Your task to perform on an android device: uninstall "eBay: The shopping marketplace" Image 0: 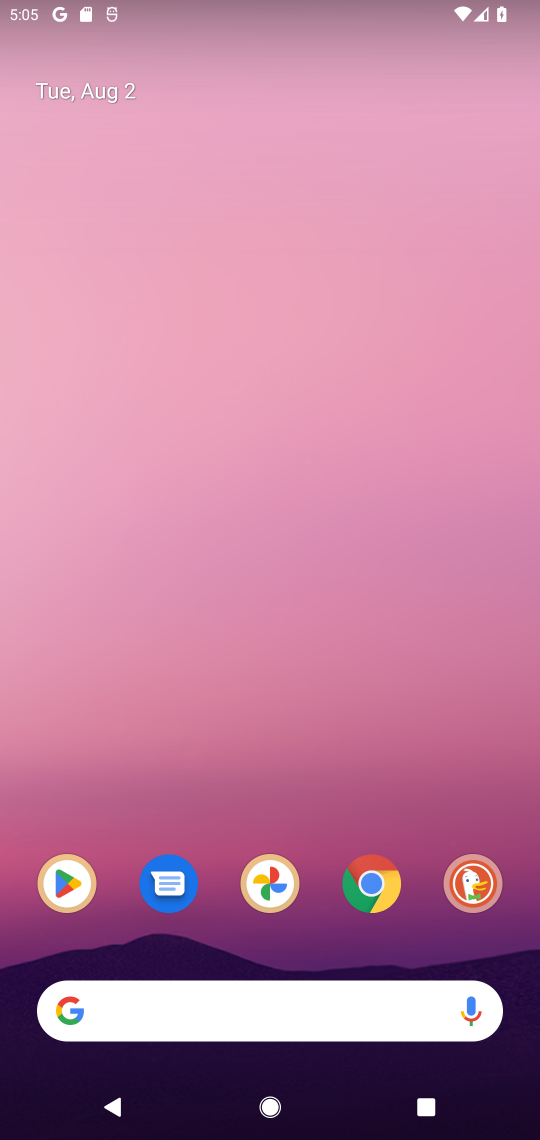
Step 0: drag from (235, 951) to (204, 109)
Your task to perform on an android device: uninstall "eBay: The shopping marketplace" Image 1: 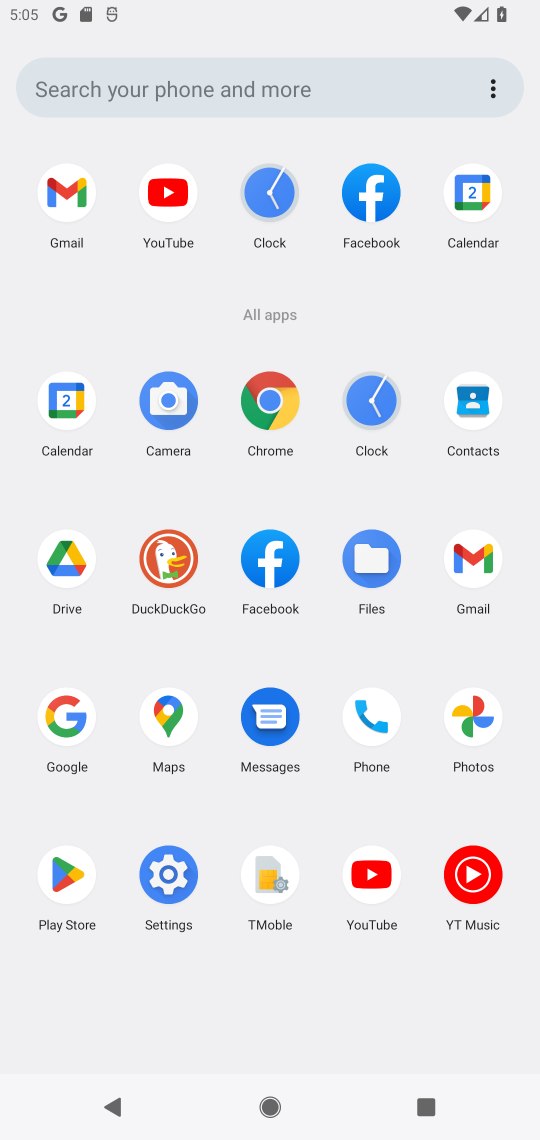
Step 1: click (71, 881)
Your task to perform on an android device: uninstall "eBay: The shopping marketplace" Image 2: 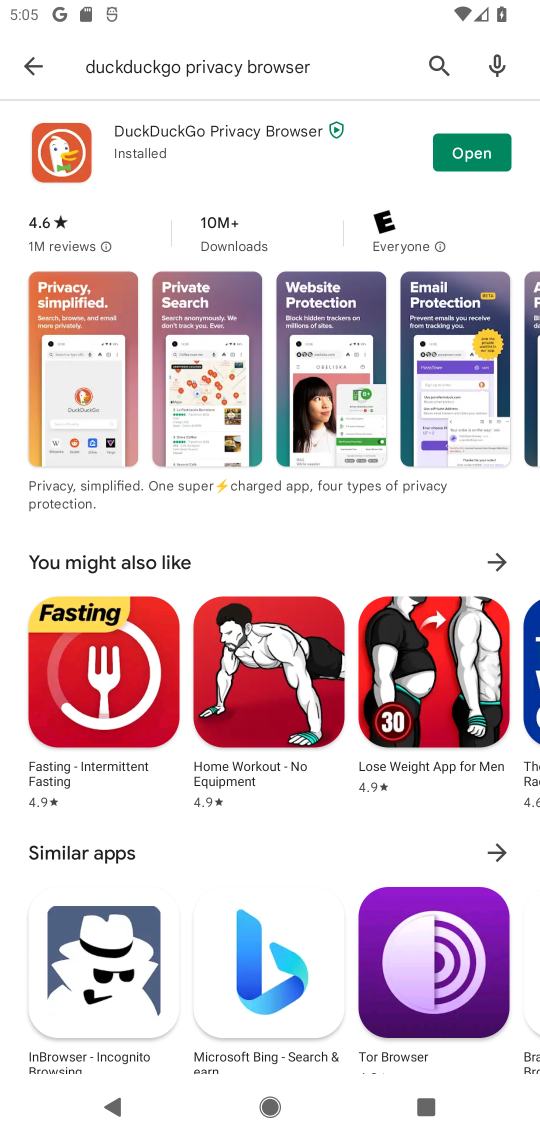
Step 2: click (10, 55)
Your task to perform on an android device: uninstall "eBay: The shopping marketplace" Image 3: 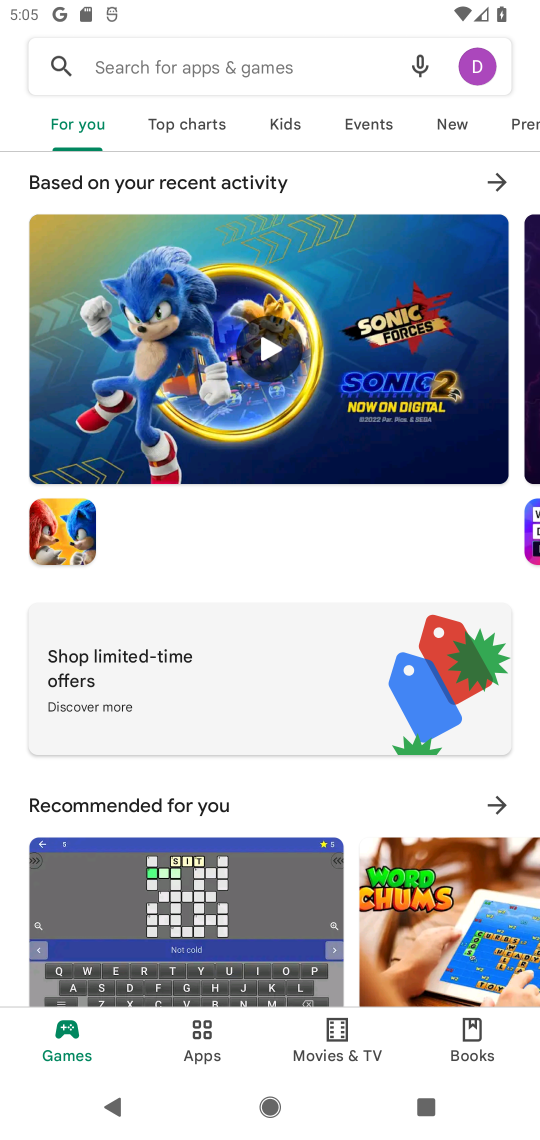
Step 3: click (135, 69)
Your task to perform on an android device: uninstall "eBay: The shopping marketplace" Image 4: 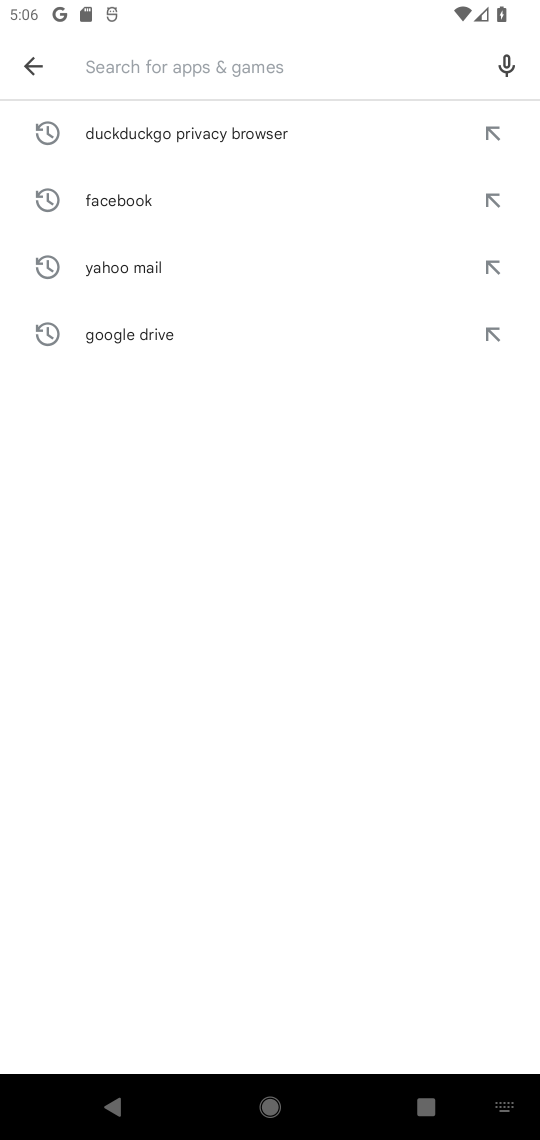
Step 4: type "eBay"
Your task to perform on an android device: uninstall "eBay: The shopping marketplace" Image 5: 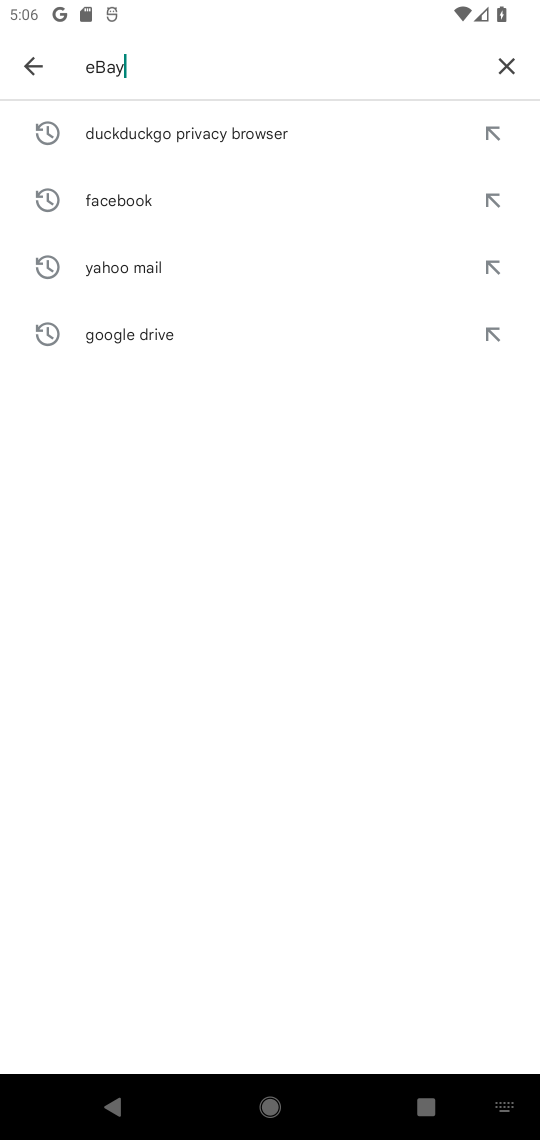
Step 5: type ""
Your task to perform on an android device: uninstall "eBay: The shopping marketplace" Image 6: 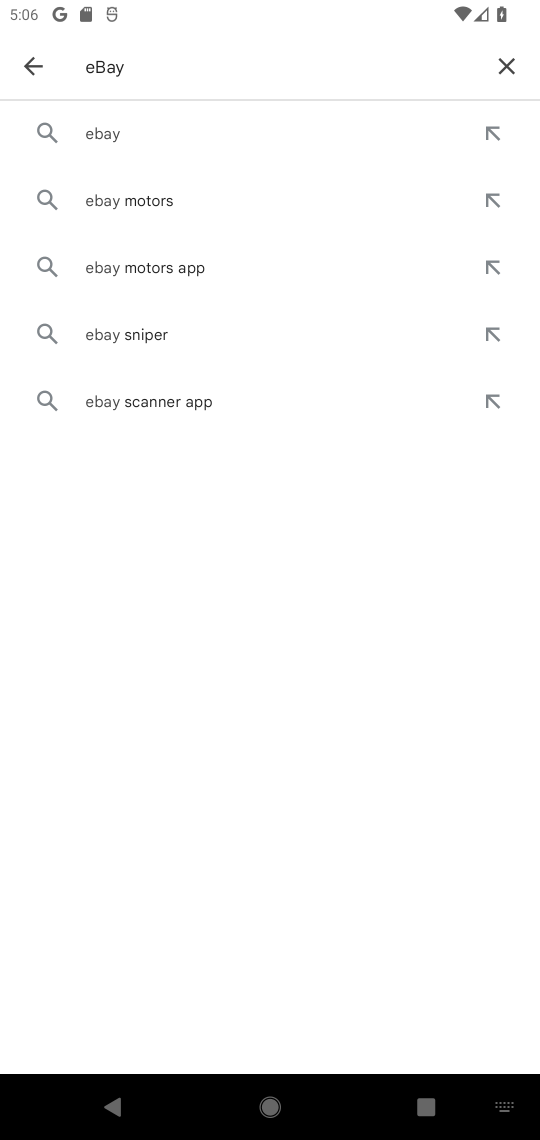
Step 6: click (78, 127)
Your task to perform on an android device: uninstall "eBay: The shopping marketplace" Image 7: 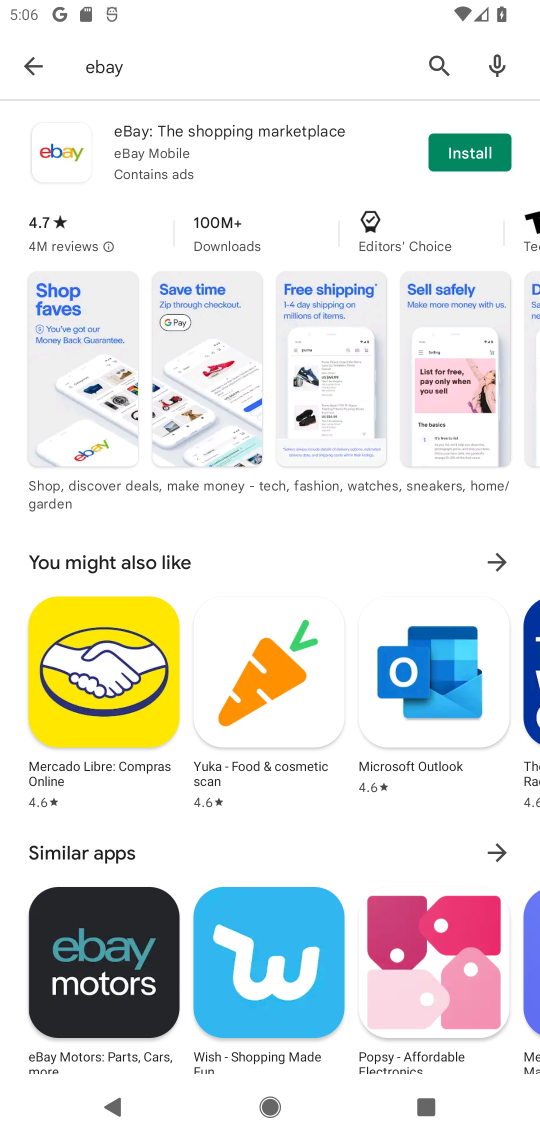
Step 7: click (167, 173)
Your task to perform on an android device: uninstall "eBay: The shopping marketplace" Image 8: 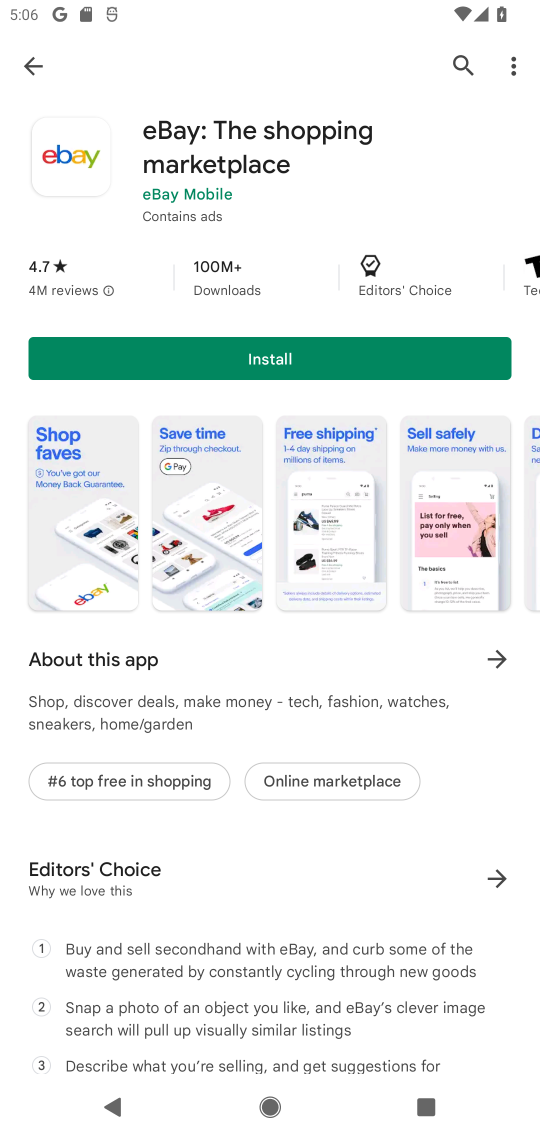
Step 8: task complete